Your task to perform on an android device: set the stopwatch Image 0: 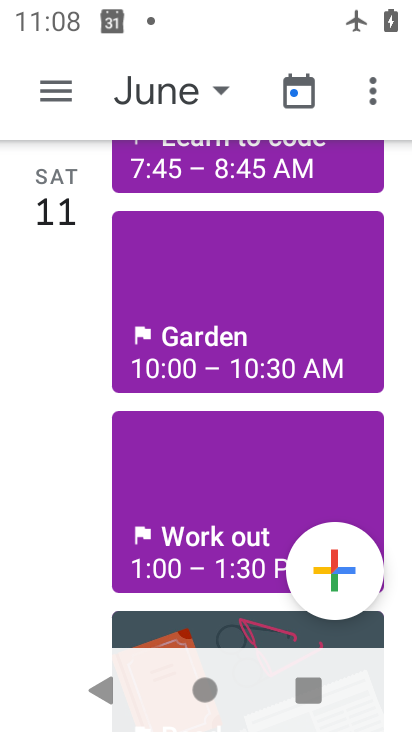
Step 0: press home button
Your task to perform on an android device: set the stopwatch Image 1: 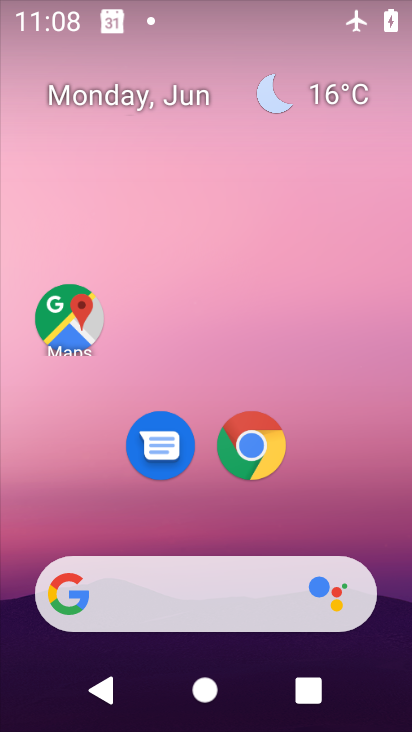
Step 1: drag from (234, 529) to (284, 111)
Your task to perform on an android device: set the stopwatch Image 2: 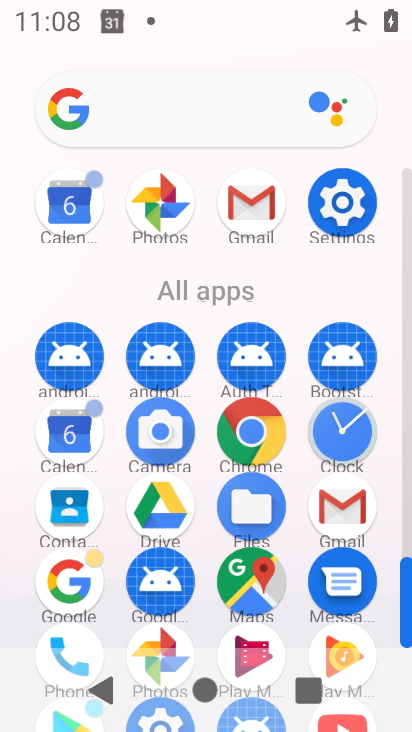
Step 2: click (344, 448)
Your task to perform on an android device: set the stopwatch Image 3: 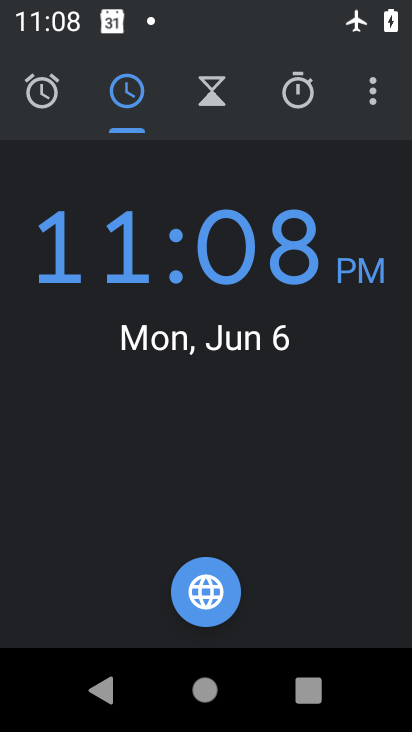
Step 3: click (300, 96)
Your task to perform on an android device: set the stopwatch Image 4: 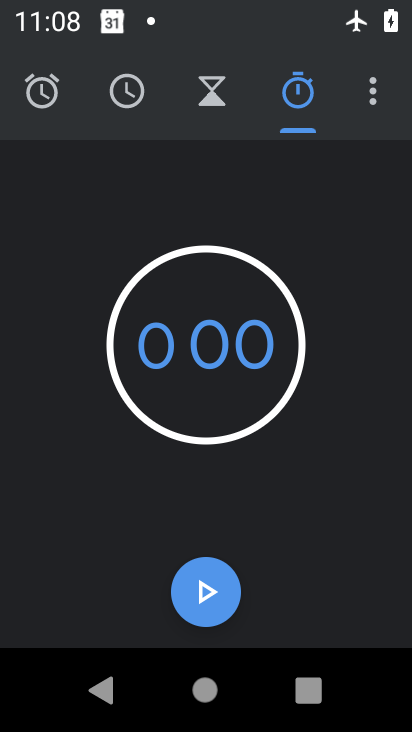
Step 4: click (160, 348)
Your task to perform on an android device: set the stopwatch Image 5: 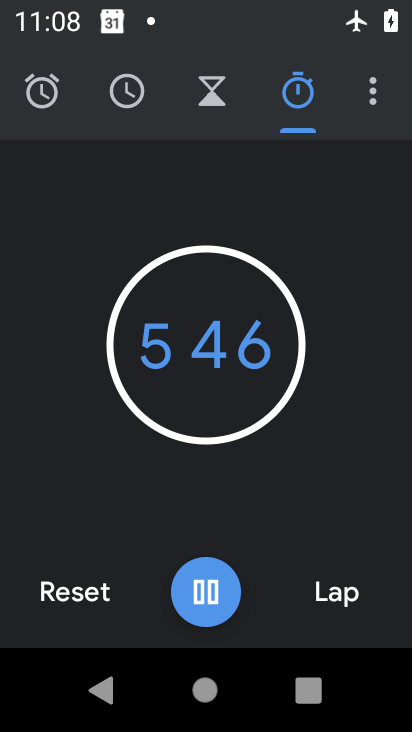
Step 5: task complete